Your task to perform on an android device: turn vacation reply on in the gmail app Image 0: 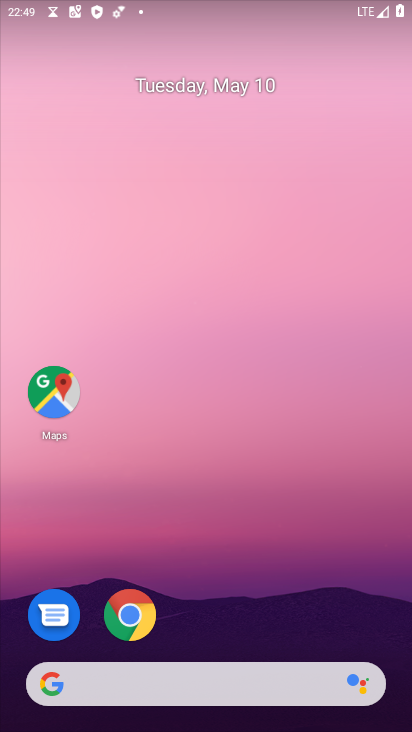
Step 0: drag from (269, 594) to (227, 126)
Your task to perform on an android device: turn vacation reply on in the gmail app Image 1: 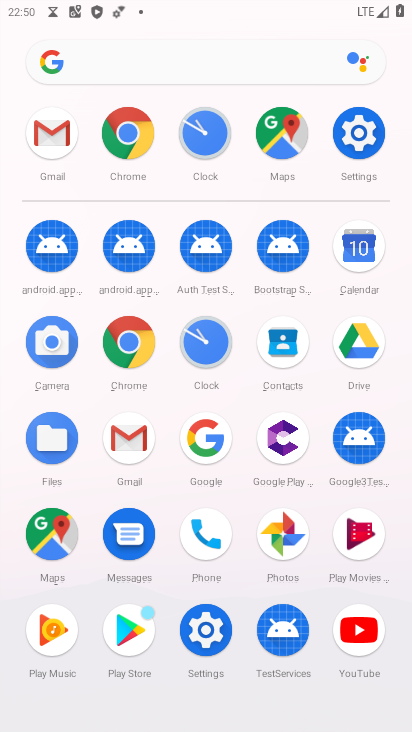
Step 1: click (52, 148)
Your task to perform on an android device: turn vacation reply on in the gmail app Image 2: 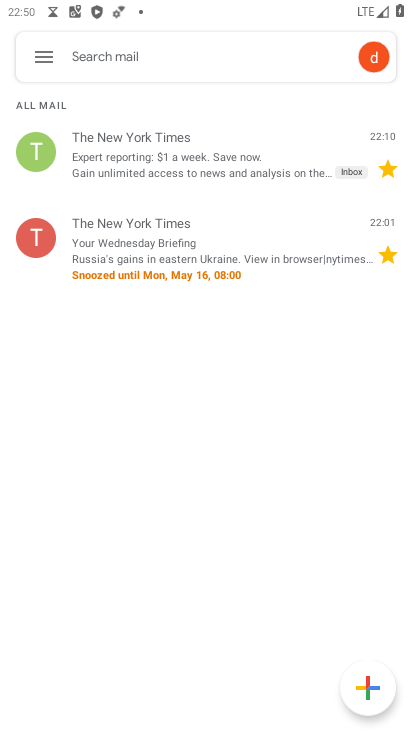
Step 2: click (42, 60)
Your task to perform on an android device: turn vacation reply on in the gmail app Image 3: 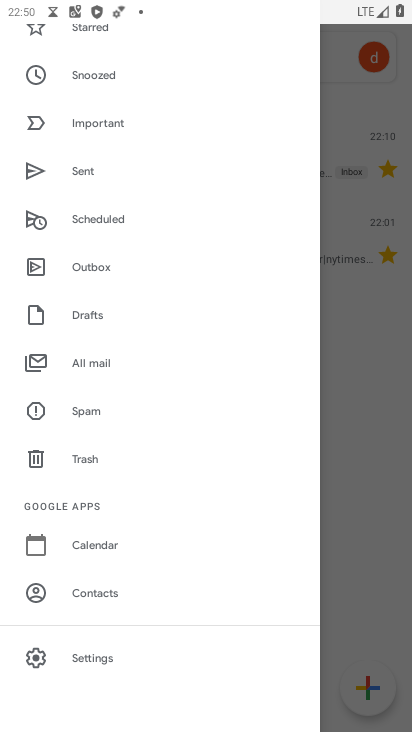
Step 3: click (92, 663)
Your task to perform on an android device: turn vacation reply on in the gmail app Image 4: 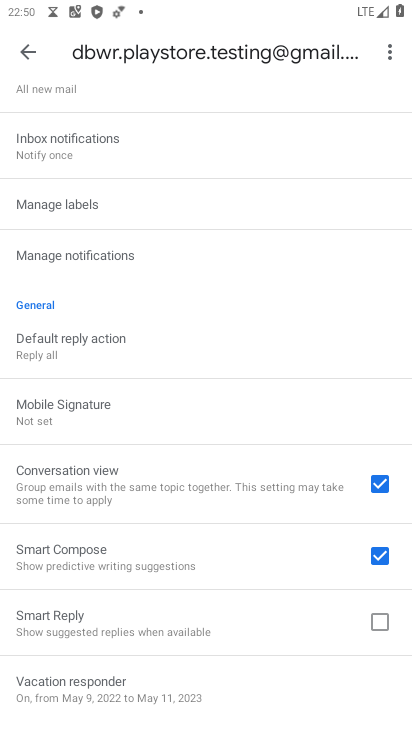
Step 4: click (88, 683)
Your task to perform on an android device: turn vacation reply on in the gmail app Image 5: 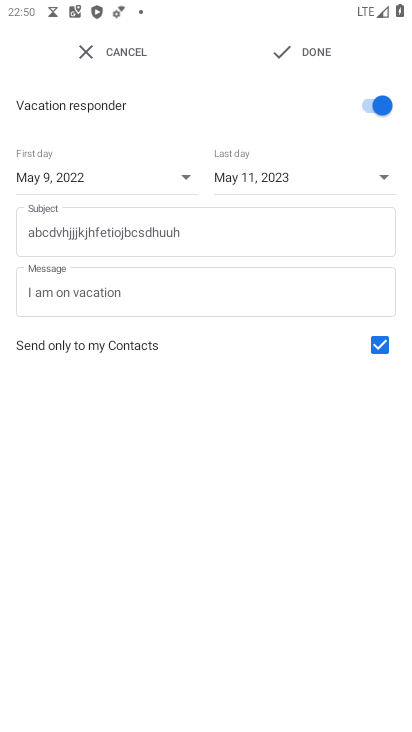
Step 5: task complete